Your task to perform on an android device: open app "YouTube Kids" (install if not already installed) and go to login screen Image 0: 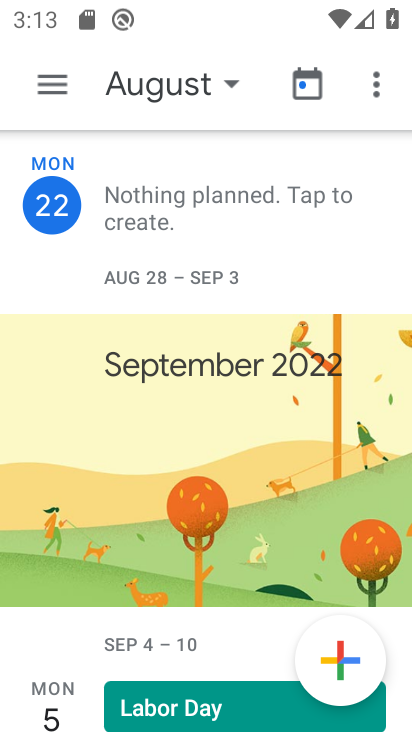
Step 0: press home button
Your task to perform on an android device: open app "YouTube Kids" (install if not already installed) and go to login screen Image 1: 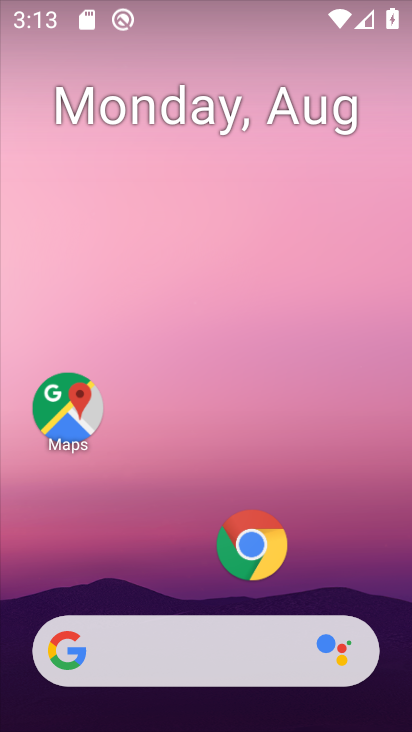
Step 1: drag from (164, 561) to (277, 10)
Your task to perform on an android device: open app "YouTube Kids" (install if not already installed) and go to login screen Image 2: 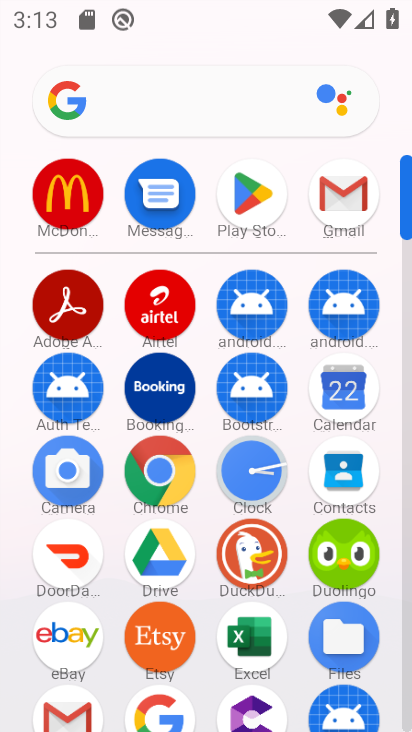
Step 2: click (252, 206)
Your task to perform on an android device: open app "YouTube Kids" (install if not already installed) and go to login screen Image 3: 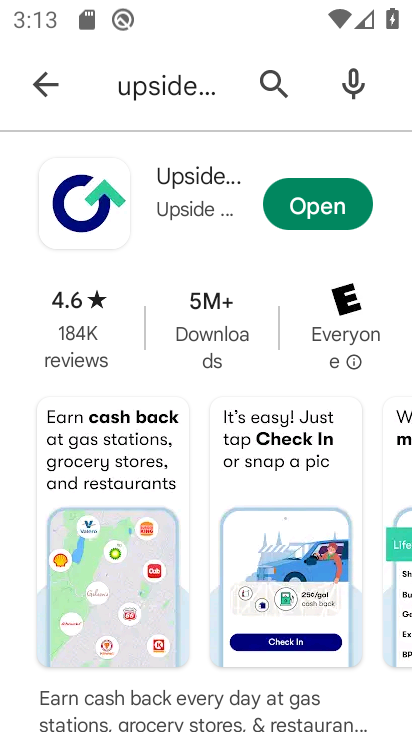
Step 3: click (271, 77)
Your task to perform on an android device: open app "YouTube Kids" (install if not already installed) and go to login screen Image 4: 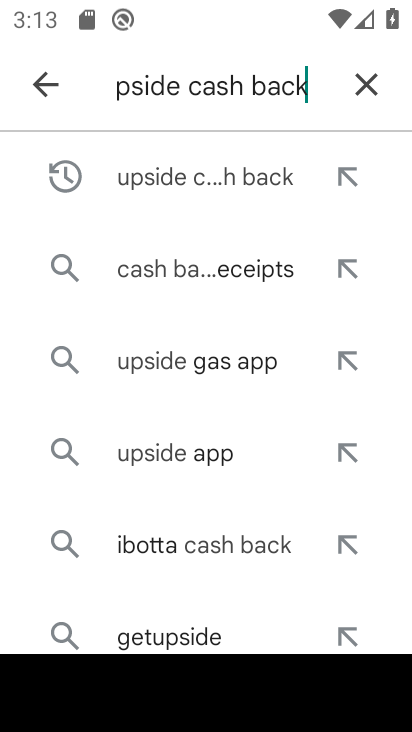
Step 4: click (362, 84)
Your task to perform on an android device: open app "YouTube Kids" (install if not already installed) and go to login screen Image 5: 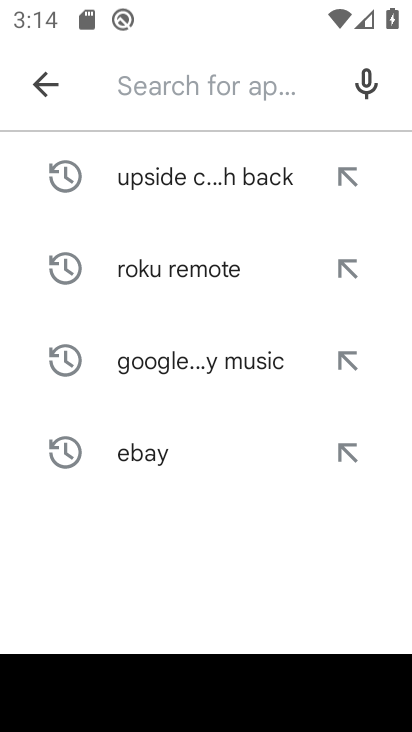
Step 5: click (167, 71)
Your task to perform on an android device: open app "YouTube Kids" (install if not already installed) and go to login screen Image 6: 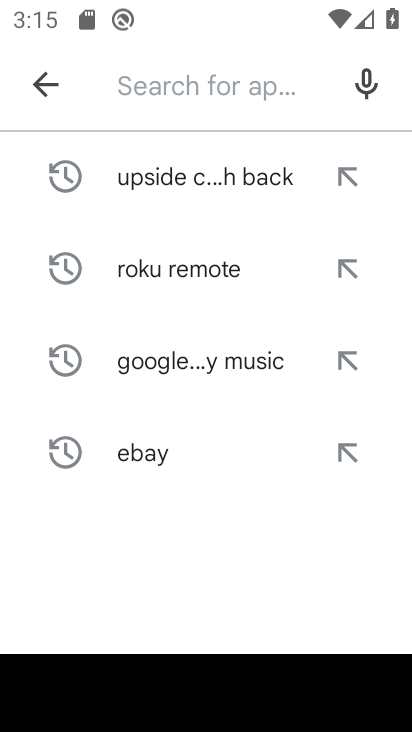
Step 6: type "YouTube Kids"
Your task to perform on an android device: open app "YouTube Kids" (install if not already installed) and go to login screen Image 7: 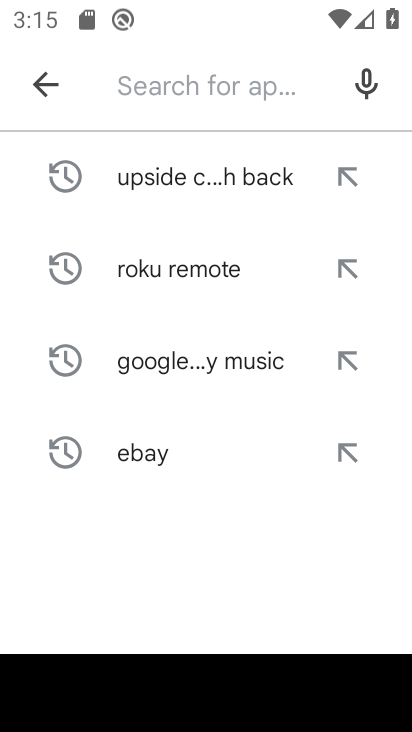
Step 7: click (110, 569)
Your task to perform on an android device: open app "YouTube Kids" (install if not already installed) and go to login screen Image 8: 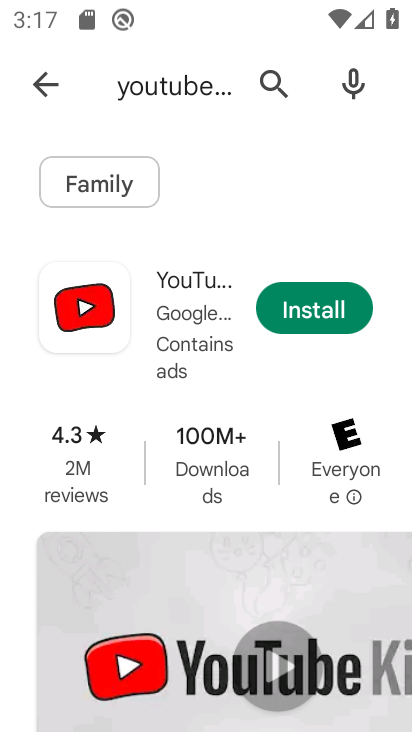
Step 8: click (321, 310)
Your task to perform on an android device: open app "YouTube Kids" (install if not already installed) and go to login screen Image 9: 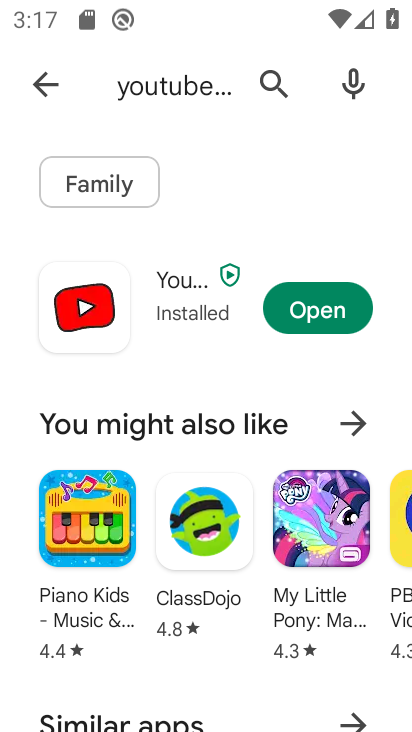
Step 9: click (330, 320)
Your task to perform on an android device: open app "YouTube Kids" (install if not already installed) and go to login screen Image 10: 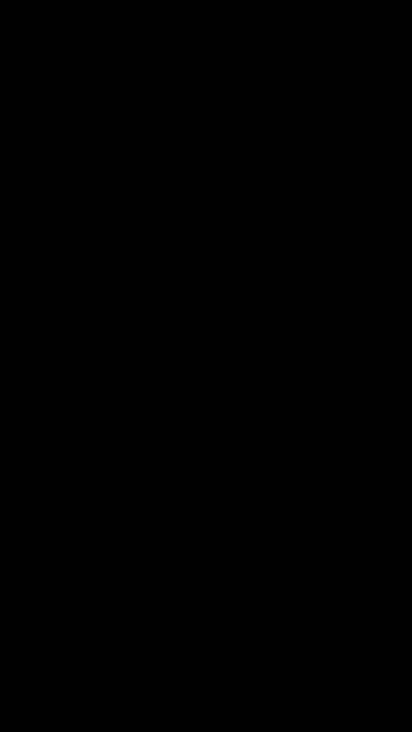
Step 10: task complete